Your task to perform on an android device: show emergency info Image 0: 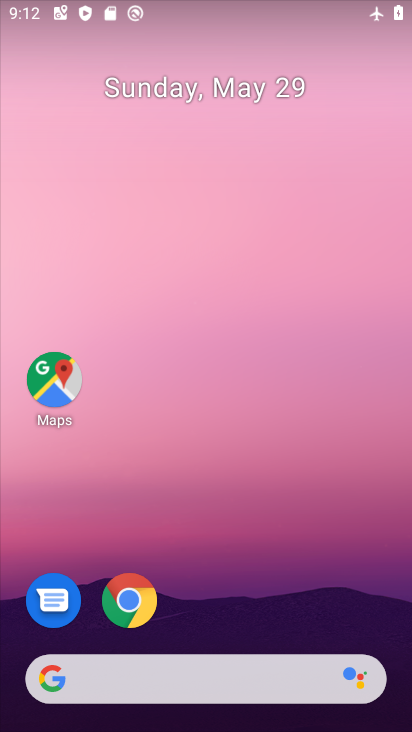
Step 0: drag from (208, 728) to (171, 5)
Your task to perform on an android device: show emergency info Image 1: 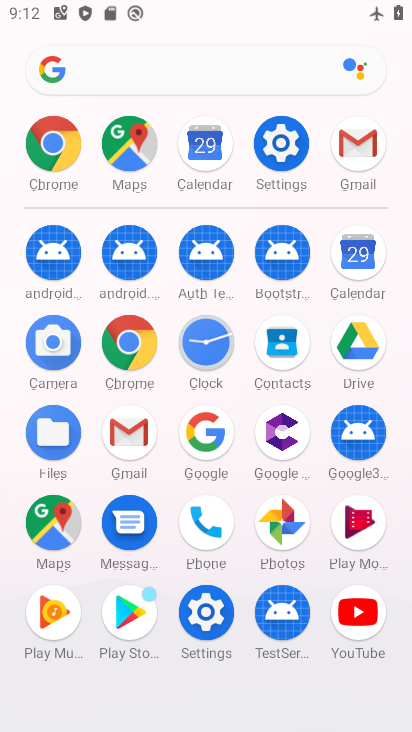
Step 1: click (283, 139)
Your task to perform on an android device: show emergency info Image 2: 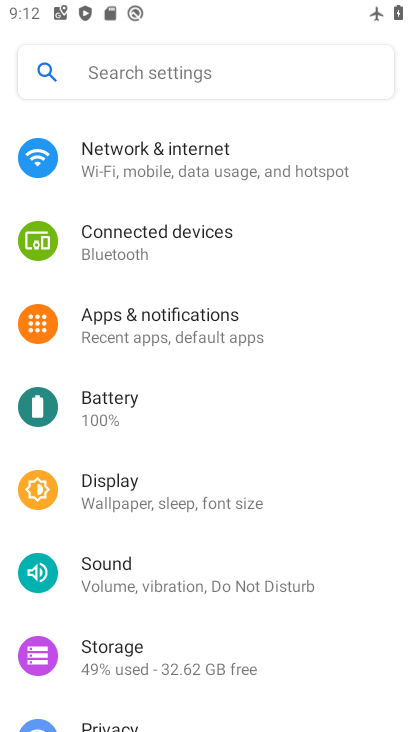
Step 2: drag from (158, 714) to (166, 219)
Your task to perform on an android device: show emergency info Image 3: 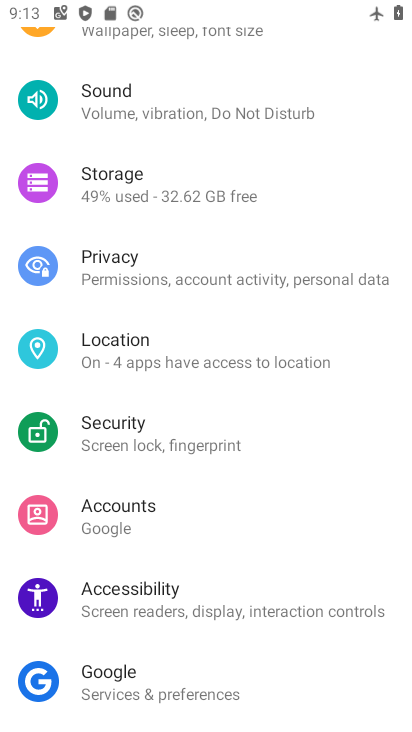
Step 3: drag from (164, 674) to (160, 283)
Your task to perform on an android device: show emergency info Image 4: 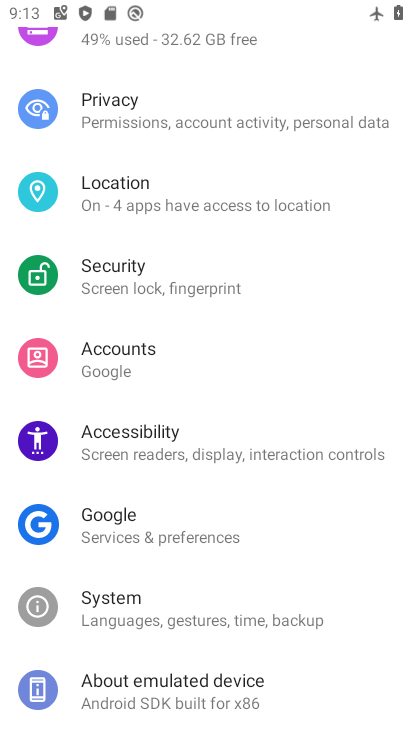
Step 4: click (138, 697)
Your task to perform on an android device: show emergency info Image 5: 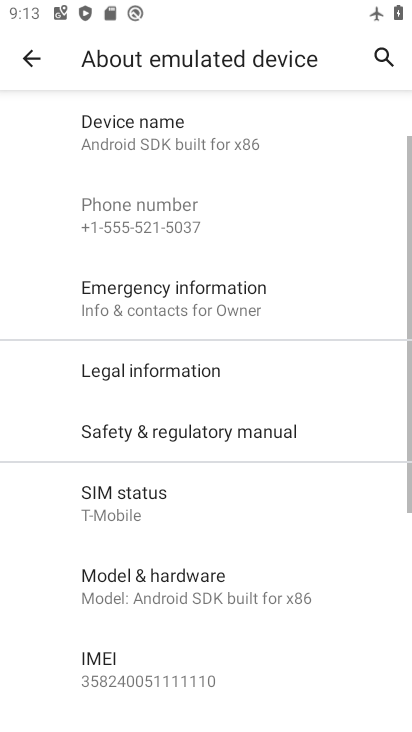
Step 5: click (169, 302)
Your task to perform on an android device: show emergency info Image 6: 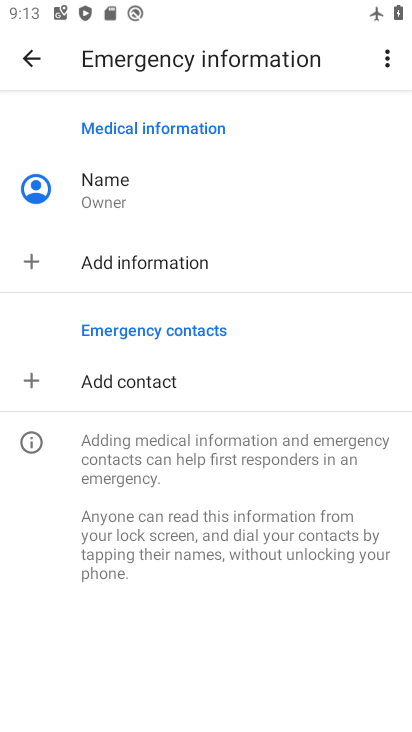
Step 6: task complete